Your task to perform on an android device: Open the calendar and show me this week's events? Image 0: 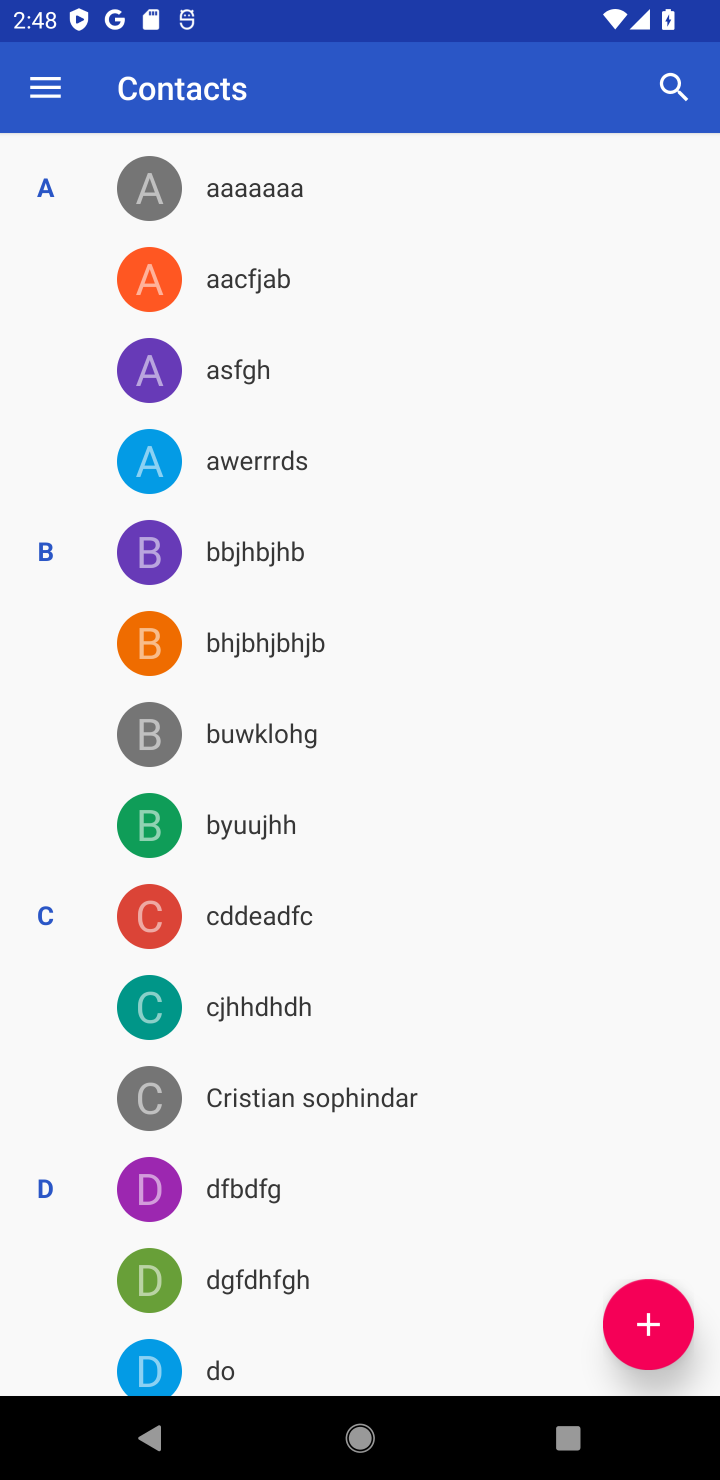
Step 0: press home button
Your task to perform on an android device: Open the calendar and show me this week's events? Image 1: 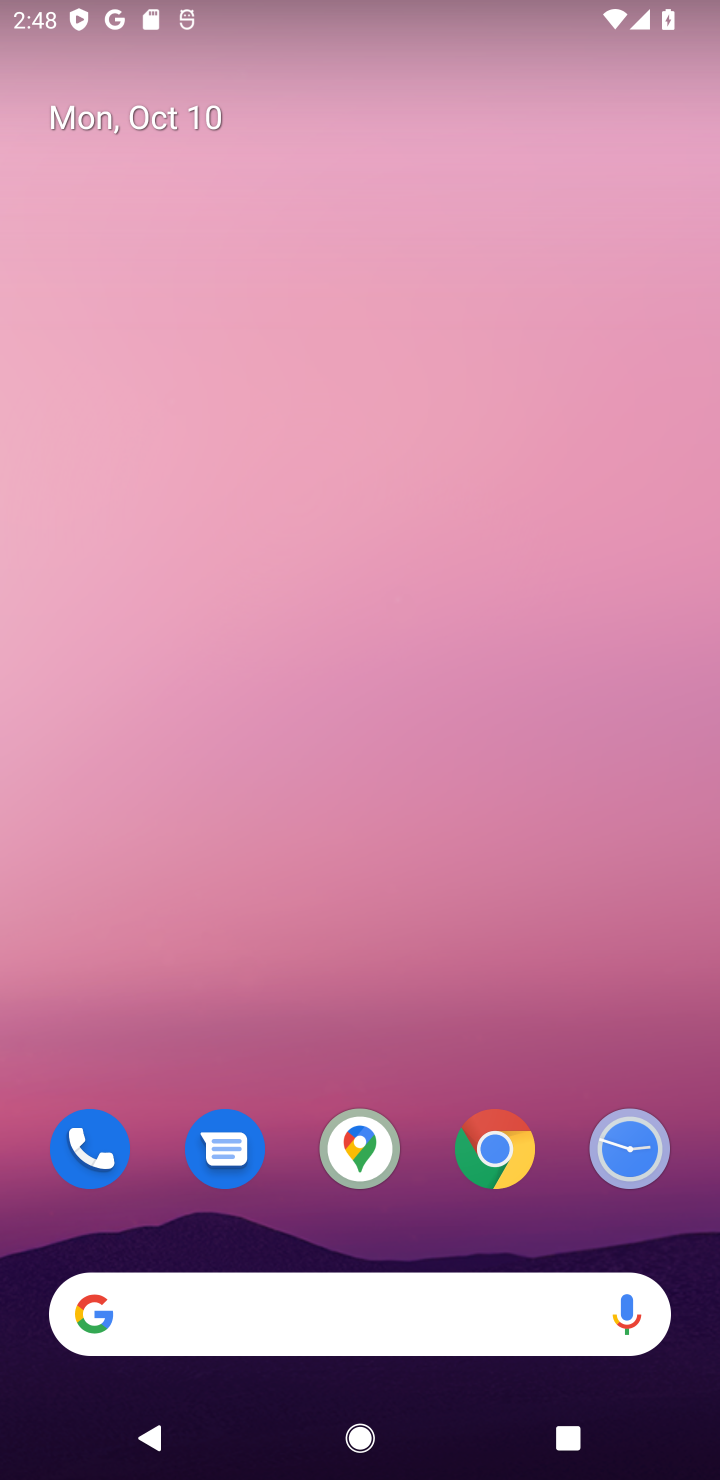
Step 1: drag from (404, 1241) to (366, 29)
Your task to perform on an android device: Open the calendar and show me this week's events? Image 2: 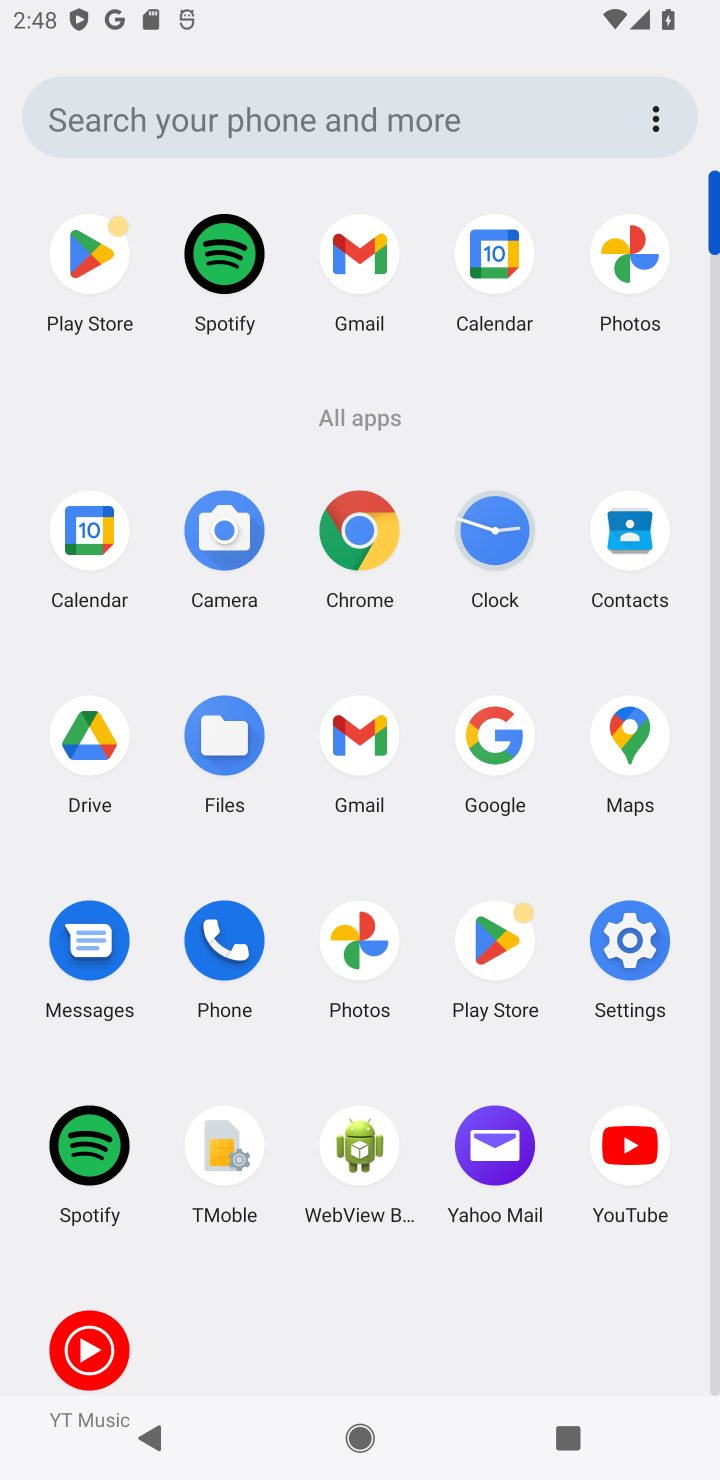
Step 2: click (466, 243)
Your task to perform on an android device: Open the calendar and show me this week's events? Image 3: 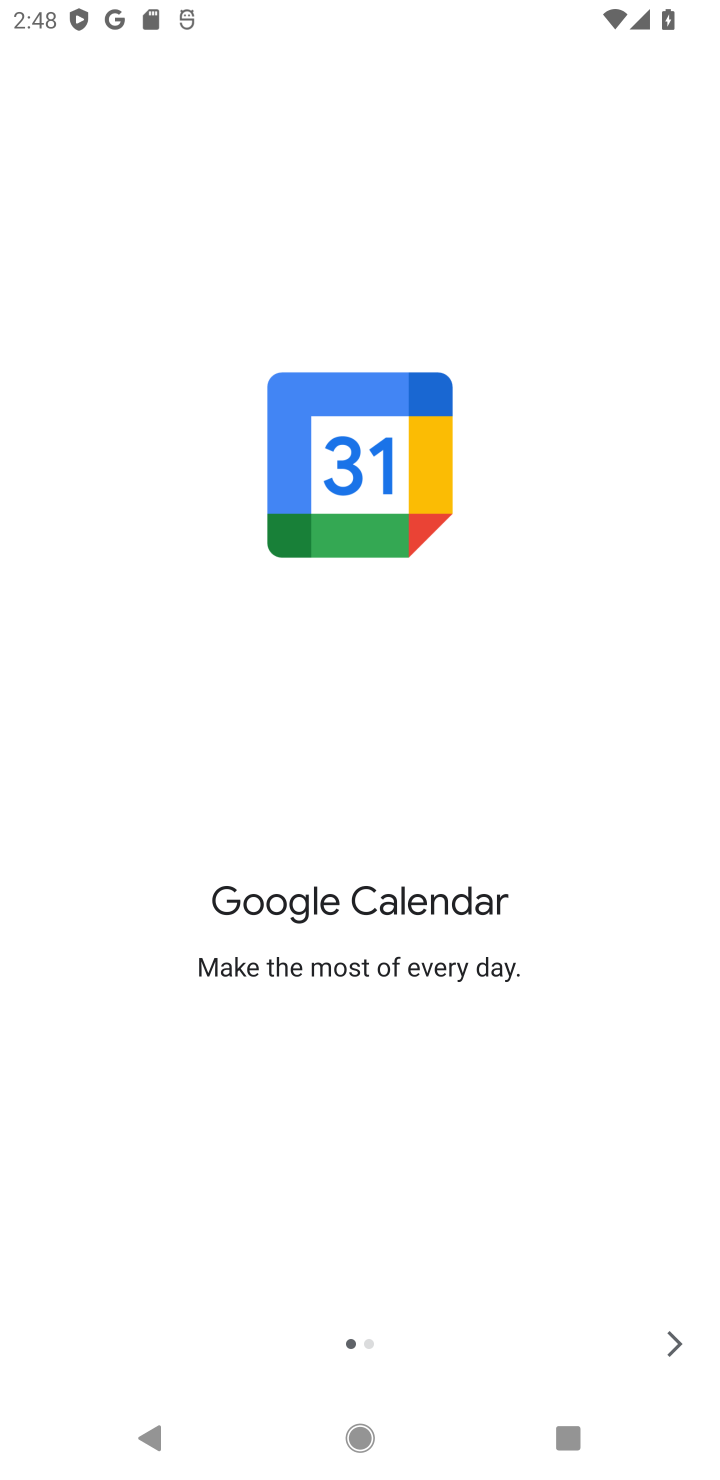
Step 3: click (667, 1333)
Your task to perform on an android device: Open the calendar and show me this week's events? Image 4: 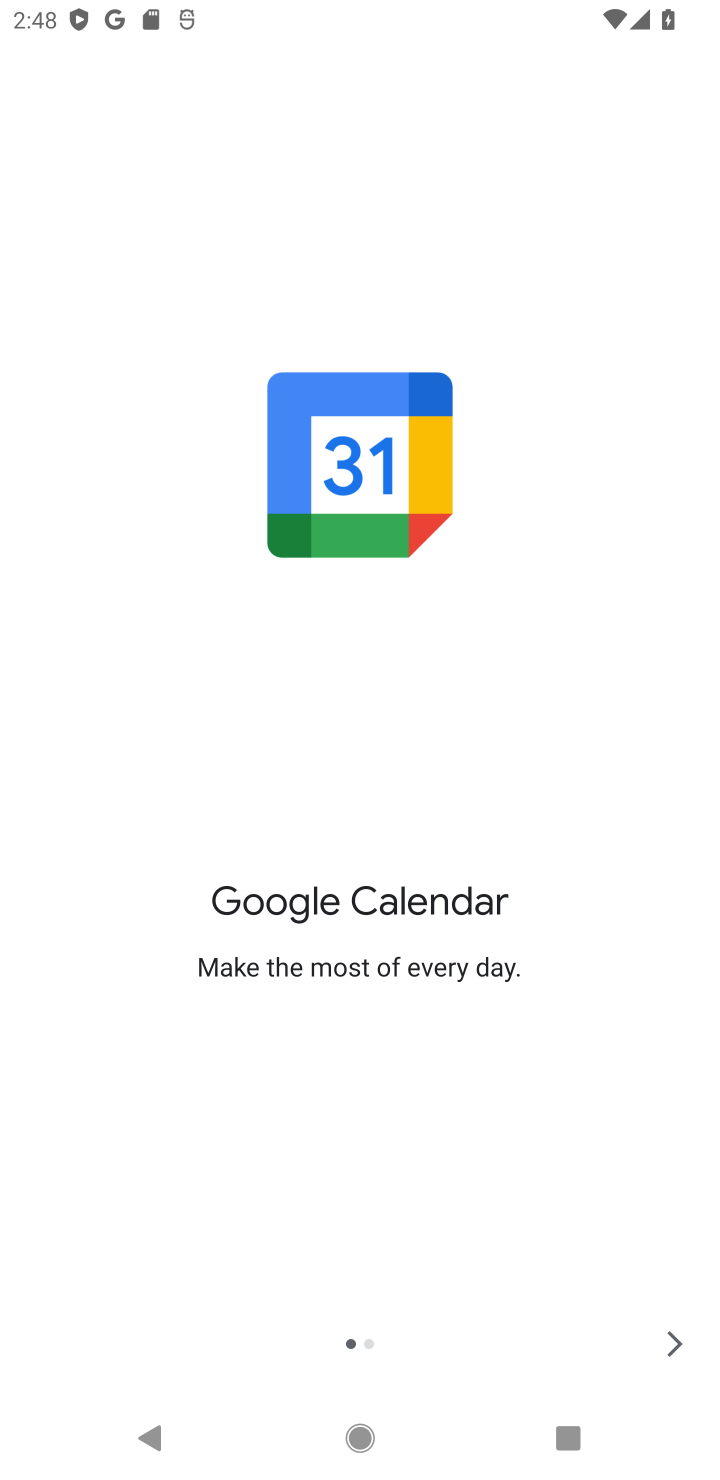
Step 4: click (667, 1333)
Your task to perform on an android device: Open the calendar and show me this week's events? Image 5: 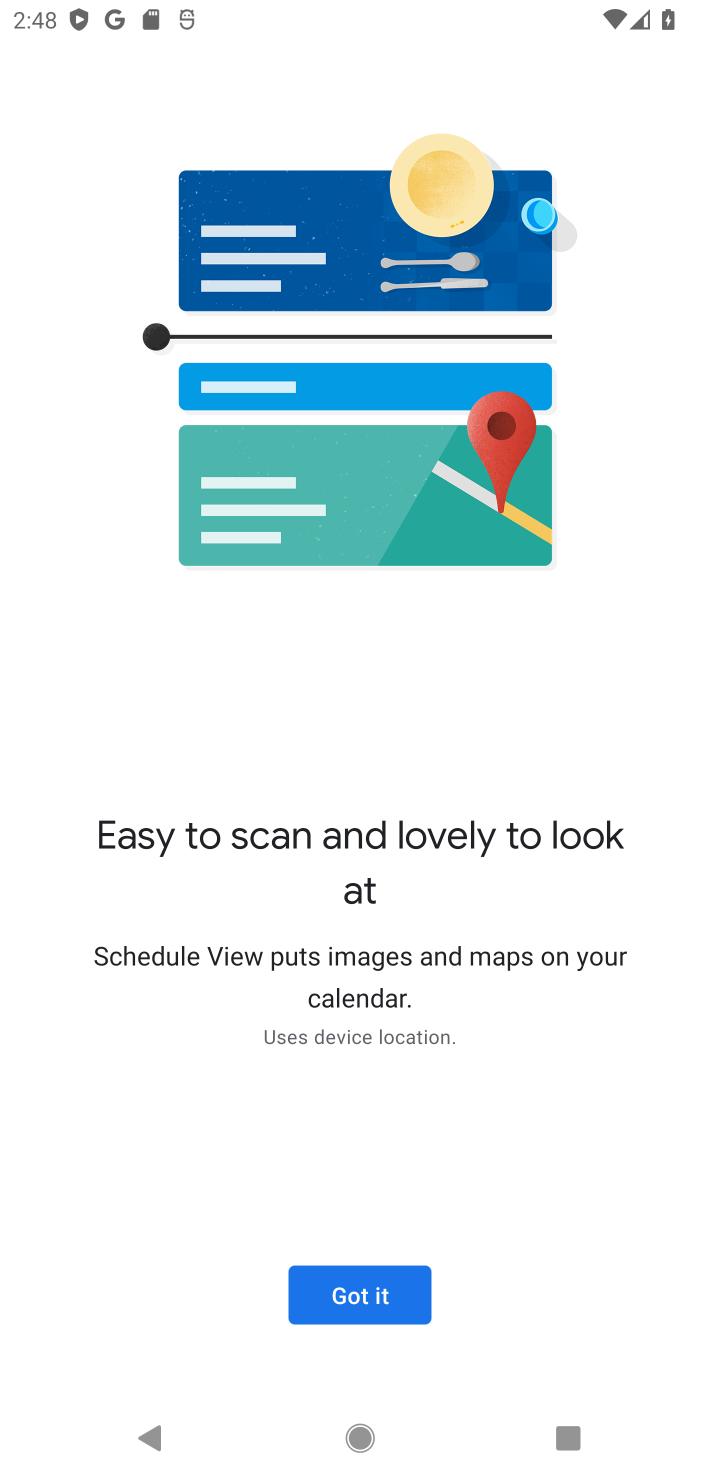
Step 5: click (379, 1298)
Your task to perform on an android device: Open the calendar and show me this week's events? Image 6: 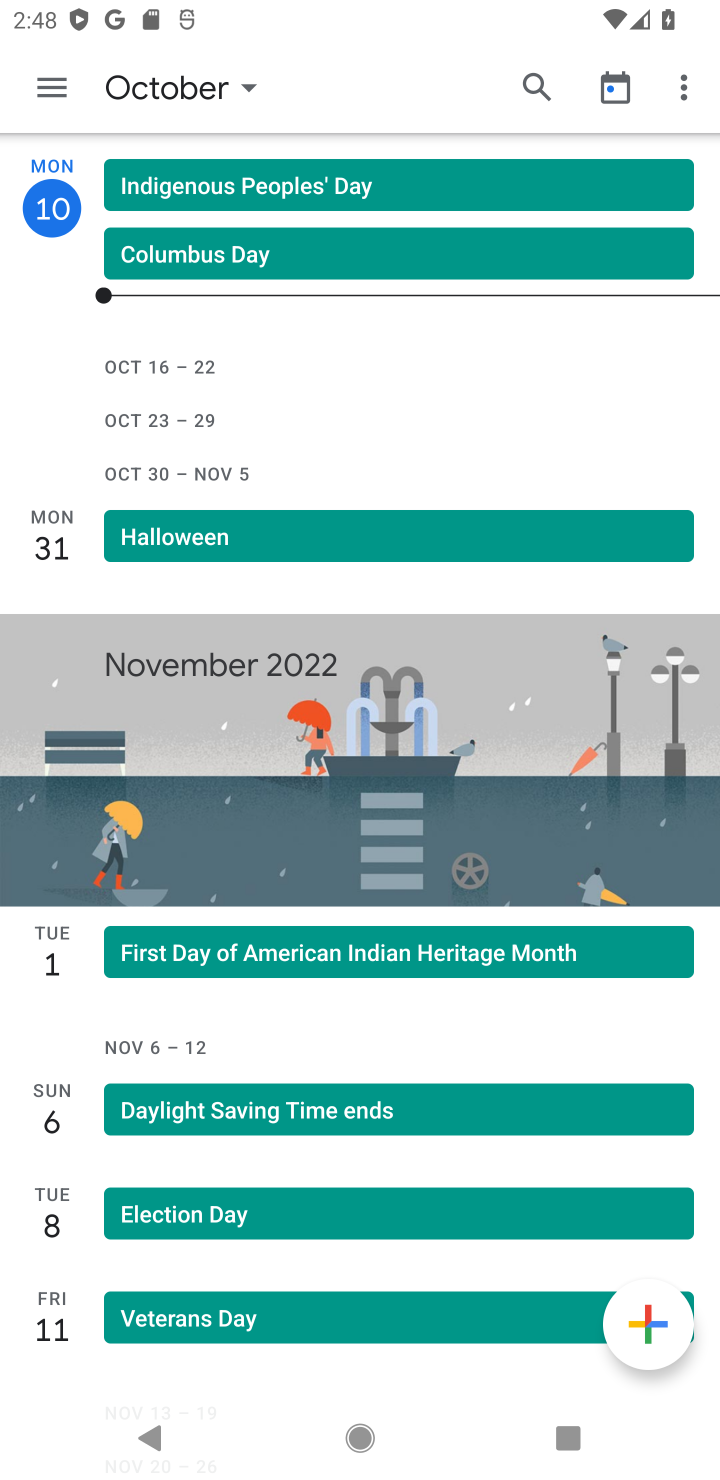
Step 6: click (61, 98)
Your task to perform on an android device: Open the calendar and show me this week's events? Image 7: 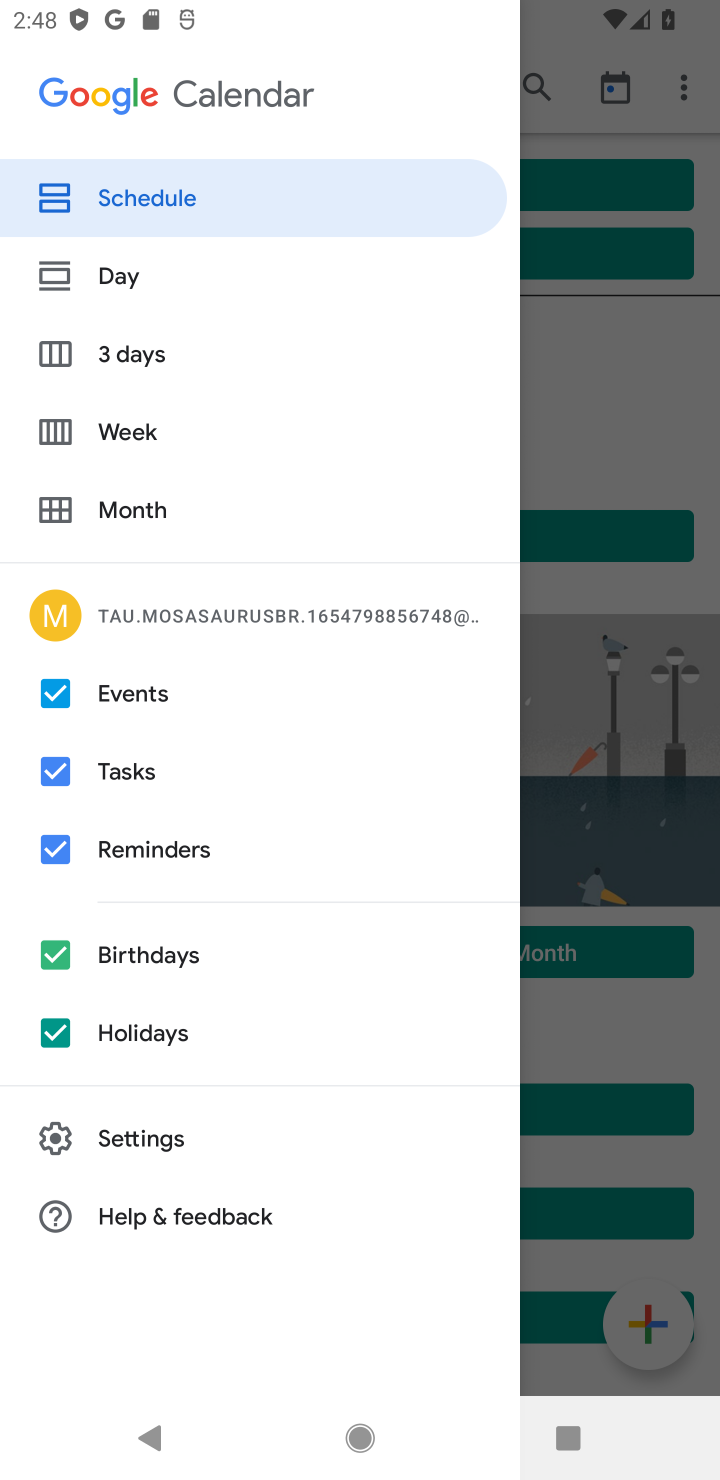
Step 7: click (111, 438)
Your task to perform on an android device: Open the calendar and show me this week's events? Image 8: 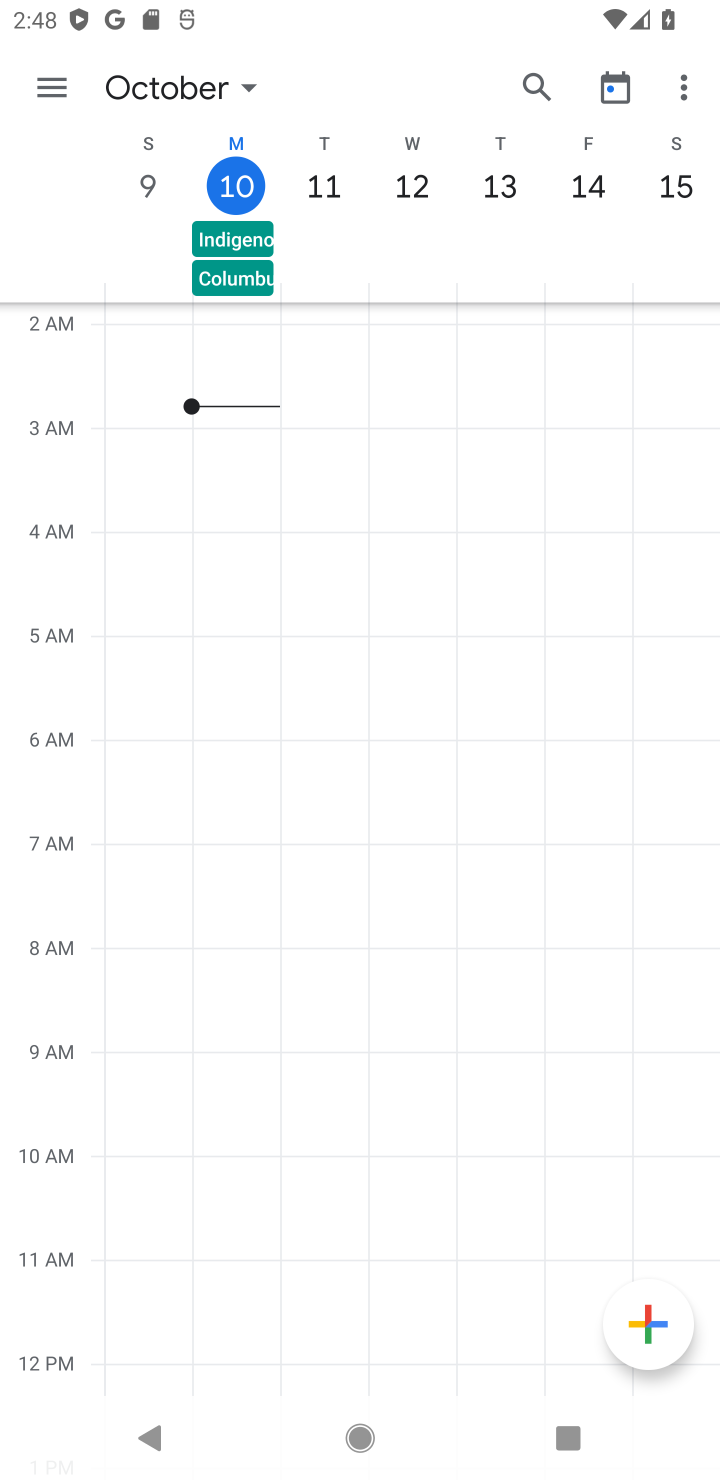
Step 8: task complete